Your task to perform on an android device: Is it going to rain tomorrow? Image 0: 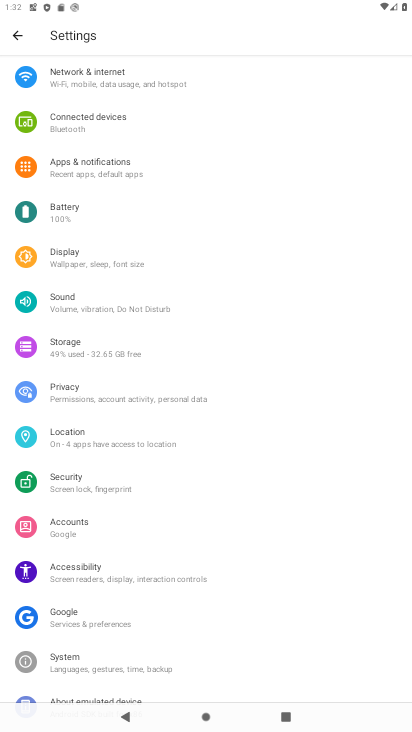
Step 0: press home button
Your task to perform on an android device: Is it going to rain tomorrow? Image 1: 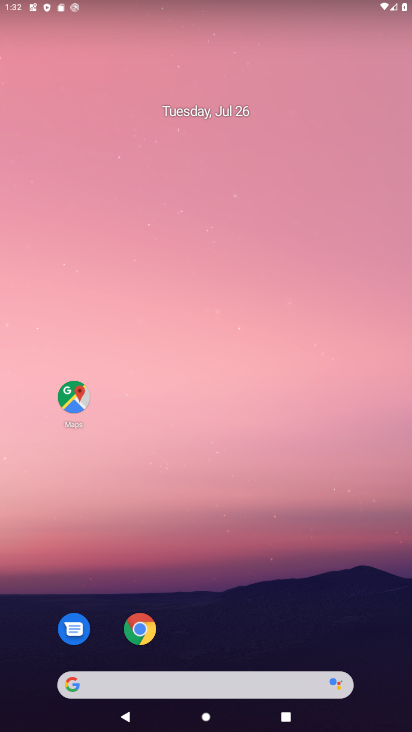
Step 1: drag from (161, 723) to (266, 503)
Your task to perform on an android device: Is it going to rain tomorrow? Image 2: 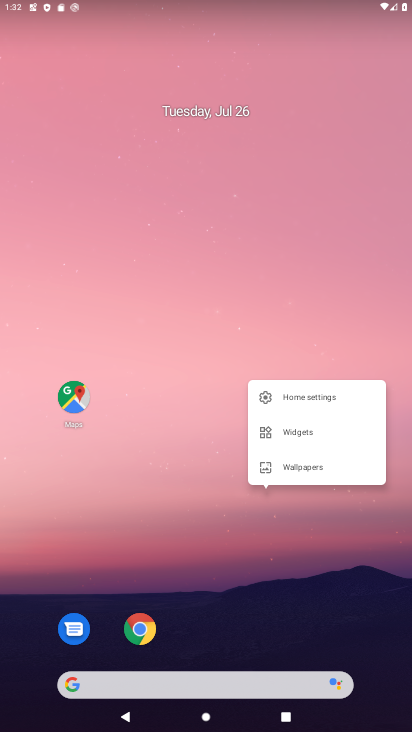
Step 2: click (176, 688)
Your task to perform on an android device: Is it going to rain tomorrow? Image 3: 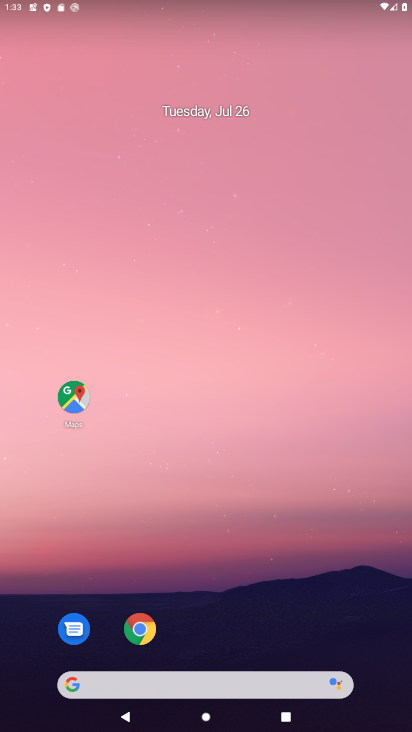
Step 3: click (176, 688)
Your task to perform on an android device: Is it going to rain tomorrow? Image 4: 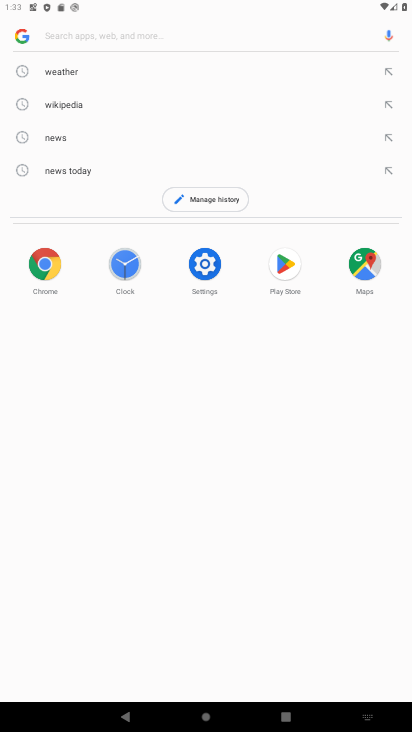
Step 4: type "Is it going to rain tomorrow?"
Your task to perform on an android device: Is it going to rain tomorrow? Image 5: 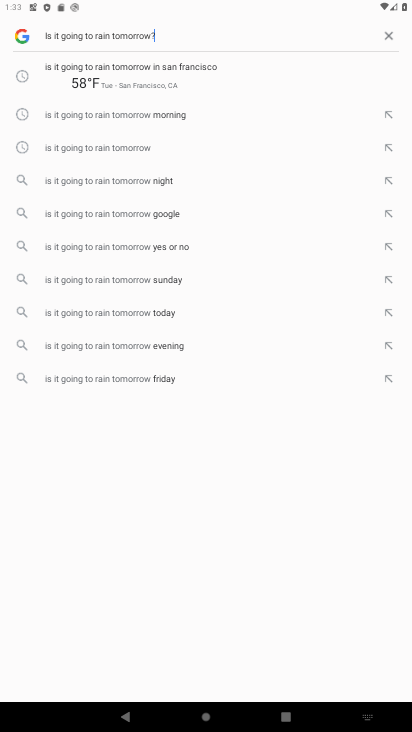
Step 5: press enter
Your task to perform on an android device: Is it going to rain tomorrow? Image 6: 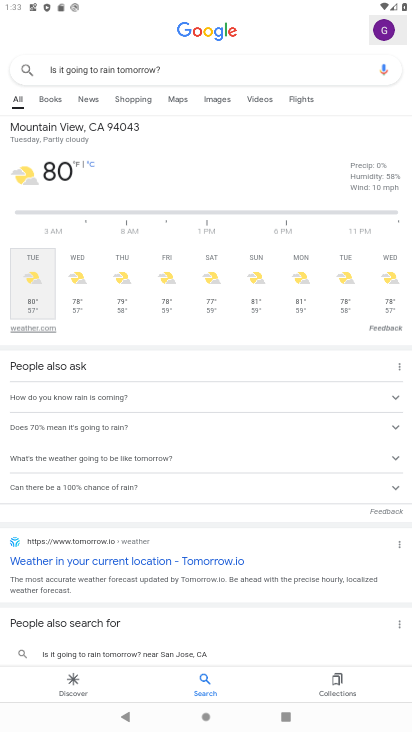
Step 6: task complete